Your task to perform on an android device: check android version Image 0: 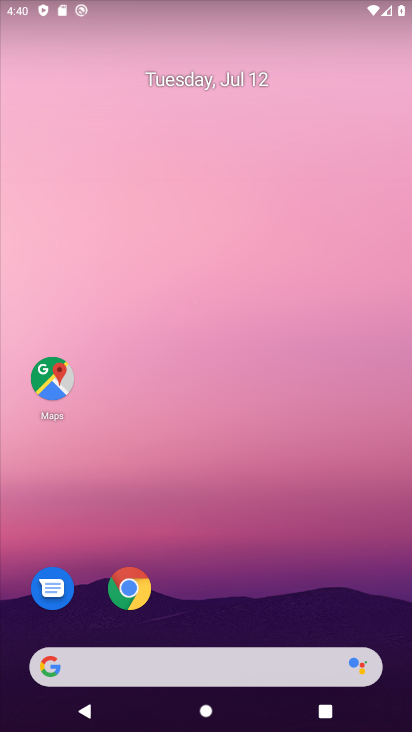
Step 0: drag from (230, 619) to (213, 52)
Your task to perform on an android device: check android version Image 1: 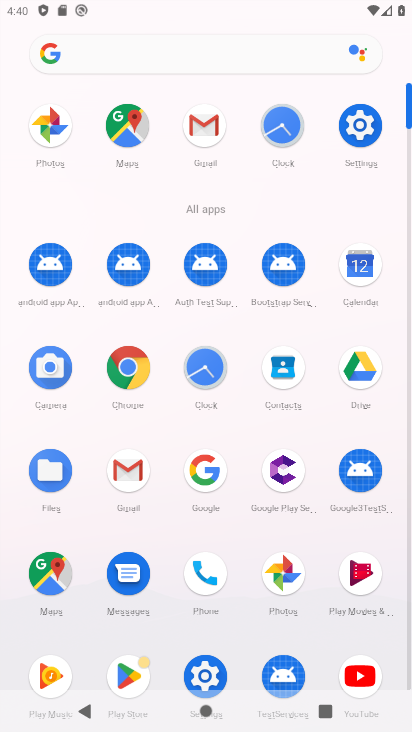
Step 1: click (124, 363)
Your task to perform on an android device: check android version Image 2: 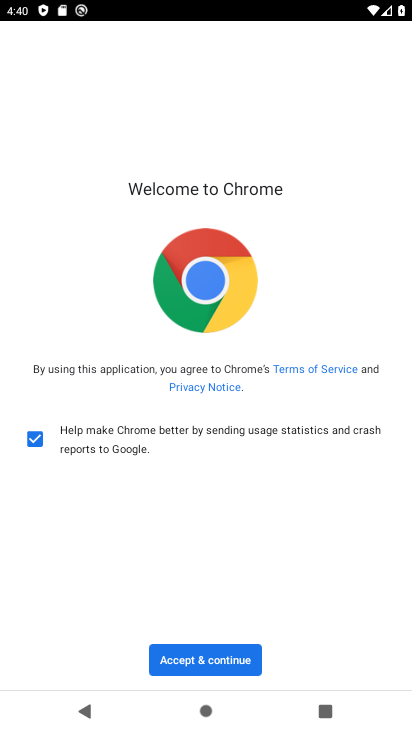
Step 2: press home button
Your task to perform on an android device: check android version Image 3: 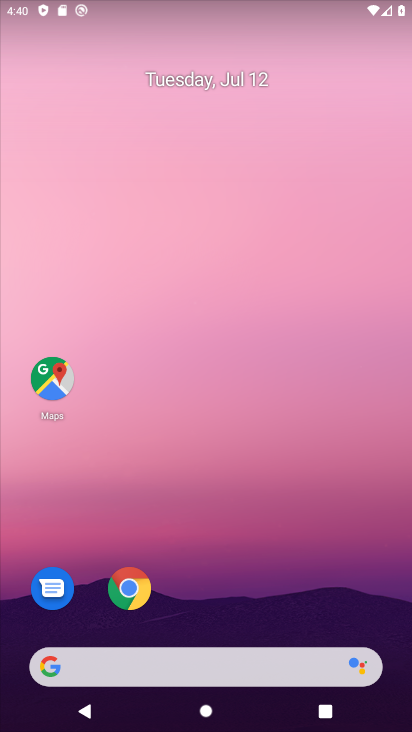
Step 3: drag from (282, 585) to (261, 160)
Your task to perform on an android device: check android version Image 4: 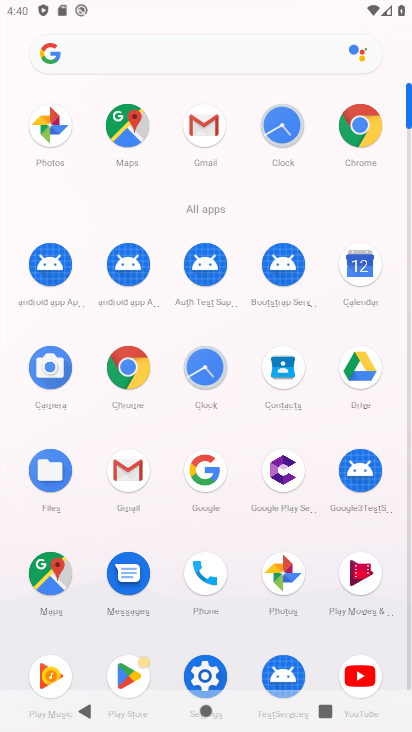
Step 4: click (204, 673)
Your task to perform on an android device: check android version Image 5: 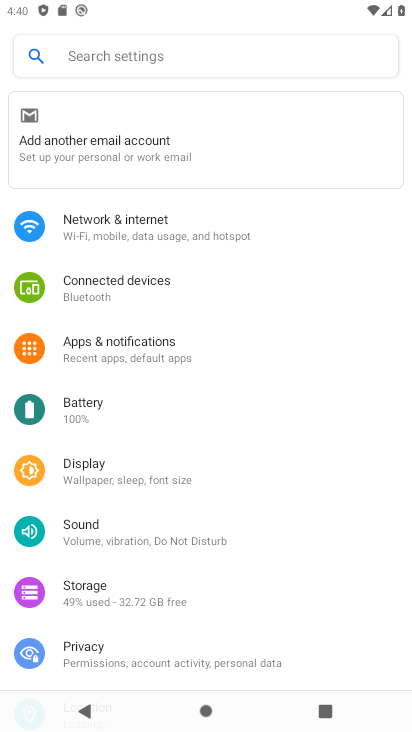
Step 5: drag from (298, 617) to (266, 197)
Your task to perform on an android device: check android version Image 6: 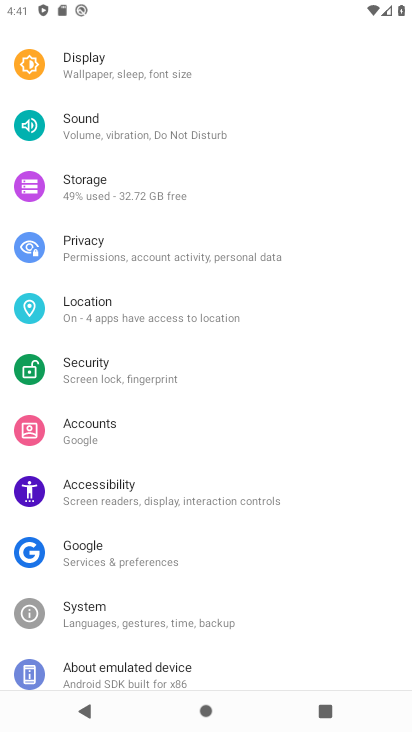
Step 6: click (137, 666)
Your task to perform on an android device: check android version Image 7: 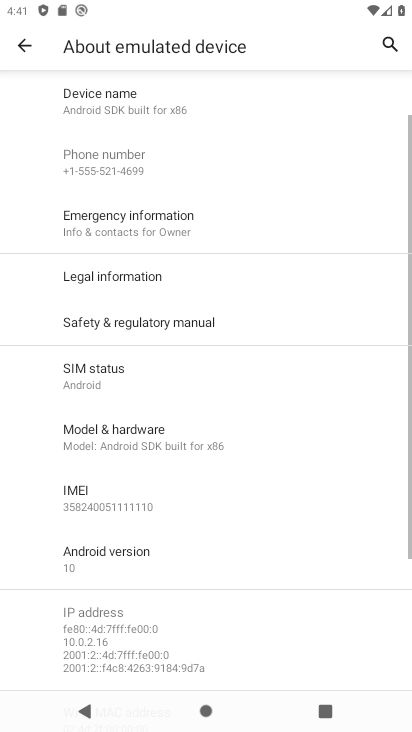
Step 7: click (133, 561)
Your task to perform on an android device: check android version Image 8: 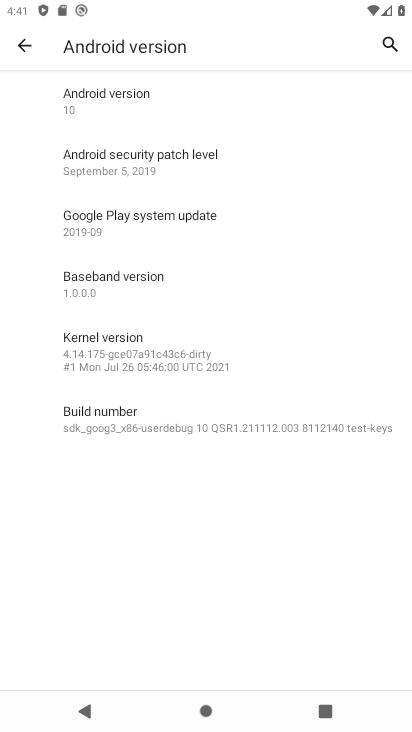
Step 8: task complete